Your task to perform on an android device: turn on notifications settings in the gmail app Image 0: 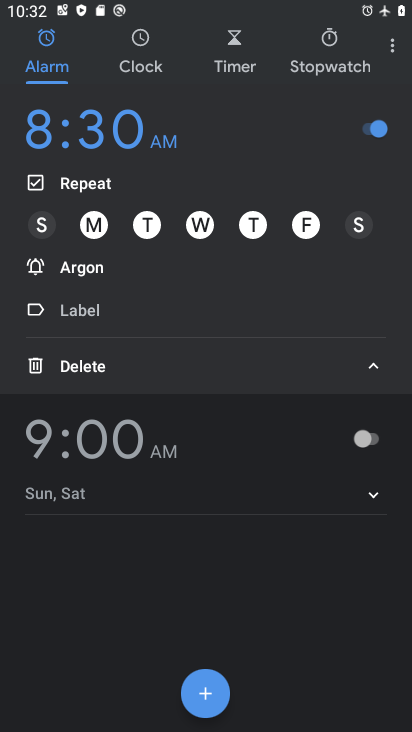
Step 0: press home button
Your task to perform on an android device: turn on notifications settings in the gmail app Image 1: 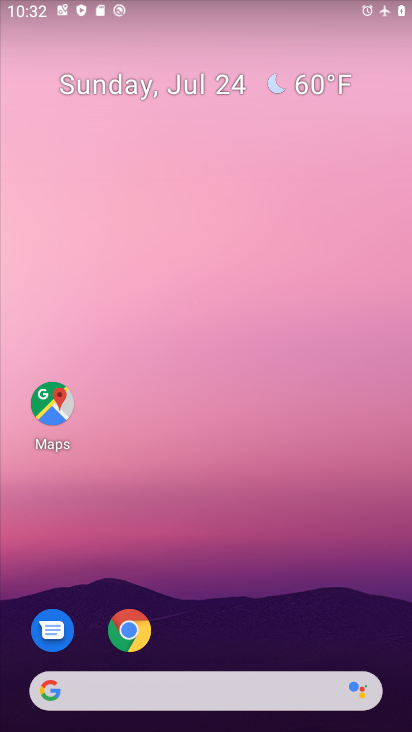
Step 1: drag from (203, 614) to (243, 8)
Your task to perform on an android device: turn on notifications settings in the gmail app Image 2: 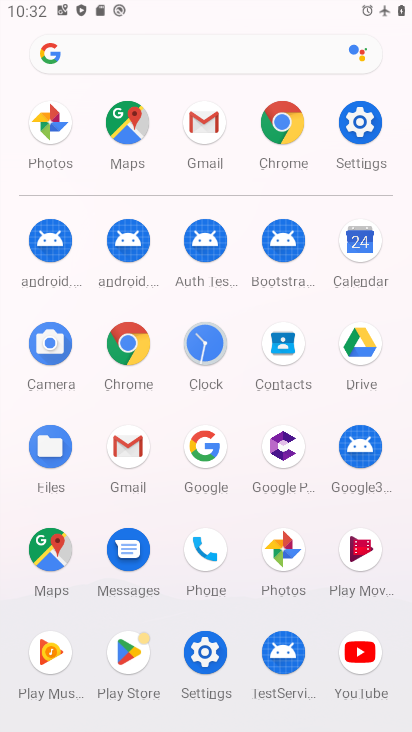
Step 2: click (130, 461)
Your task to perform on an android device: turn on notifications settings in the gmail app Image 3: 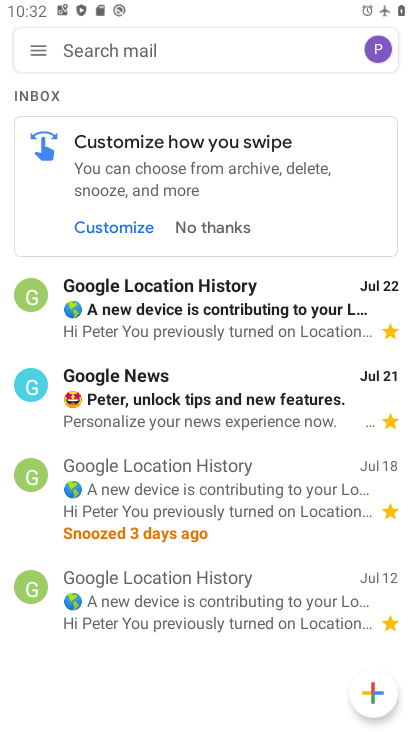
Step 3: click (38, 48)
Your task to perform on an android device: turn on notifications settings in the gmail app Image 4: 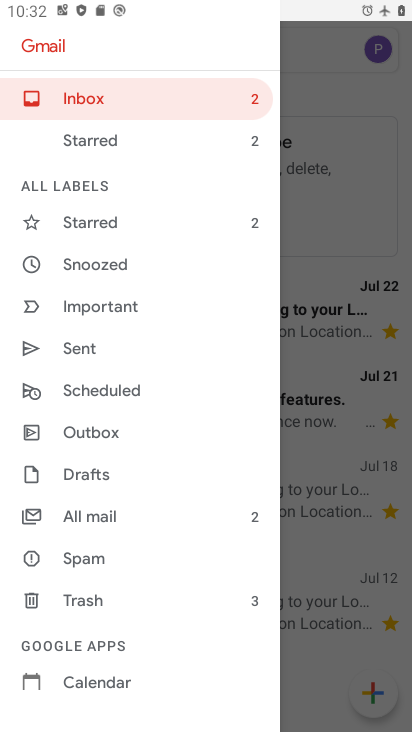
Step 4: drag from (111, 513) to (208, 30)
Your task to perform on an android device: turn on notifications settings in the gmail app Image 5: 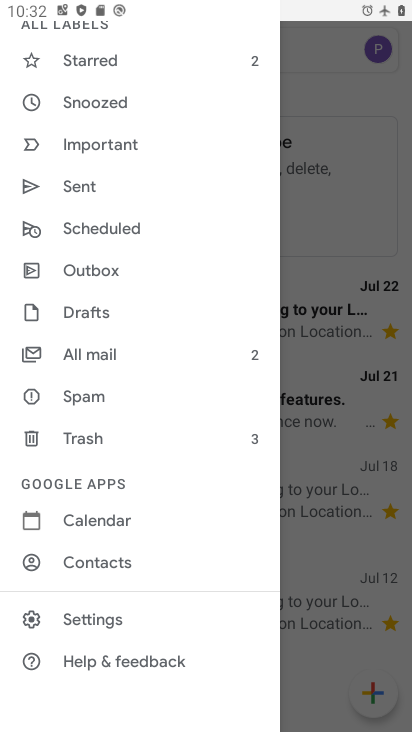
Step 5: click (104, 620)
Your task to perform on an android device: turn on notifications settings in the gmail app Image 6: 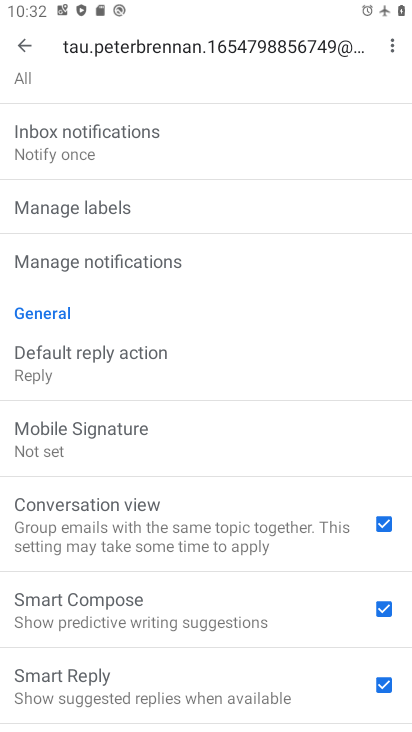
Step 6: click (30, 40)
Your task to perform on an android device: turn on notifications settings in the gmail app Image 7: 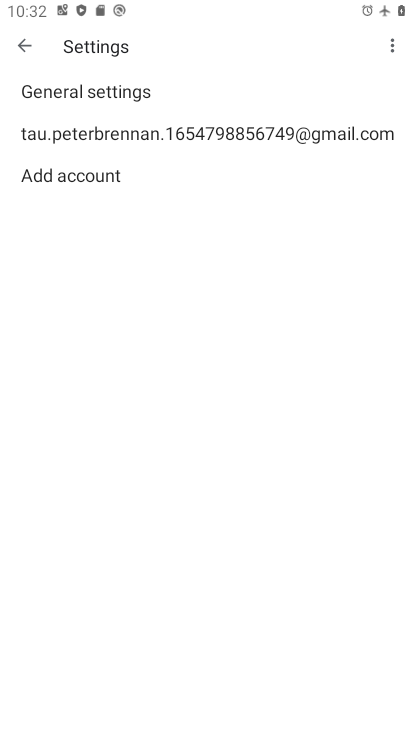
Step 7: click (121, 89)
Your task to perform on an android device: turn on notifications settings in the gmail app Image 8: 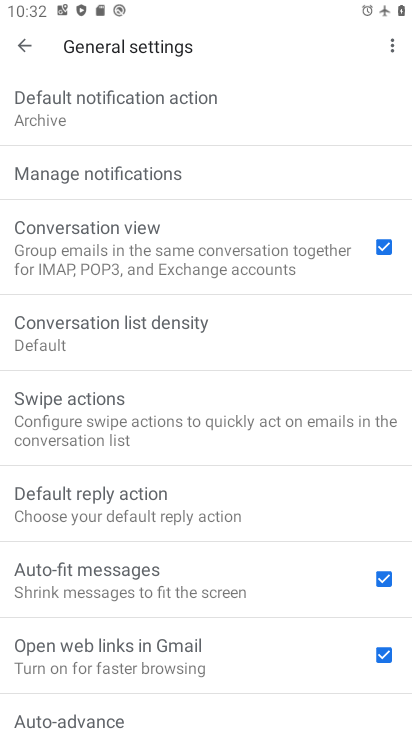
Step 8: click (111, 168)
Your task to perform on an android device: turn on notifications settings in the gmail app Image 9: 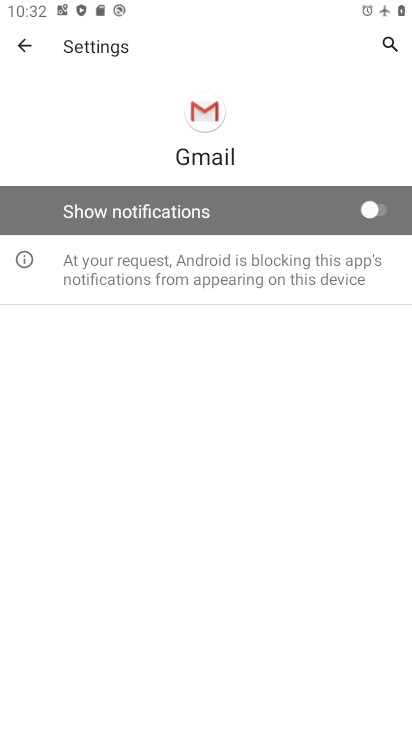
Step 9: click (358, 215)
Your task to perform on an android device: turn on notifications settings in the gmail app Image 10: 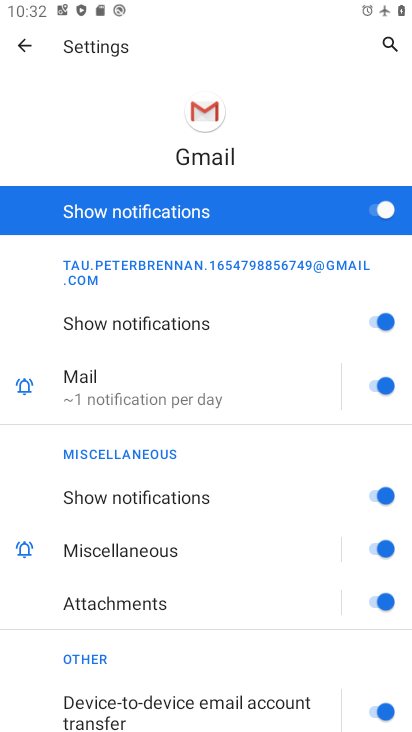
Step 10: task complete